Your task to perform on an android device: toggle javascript in the chrome app Image 0: 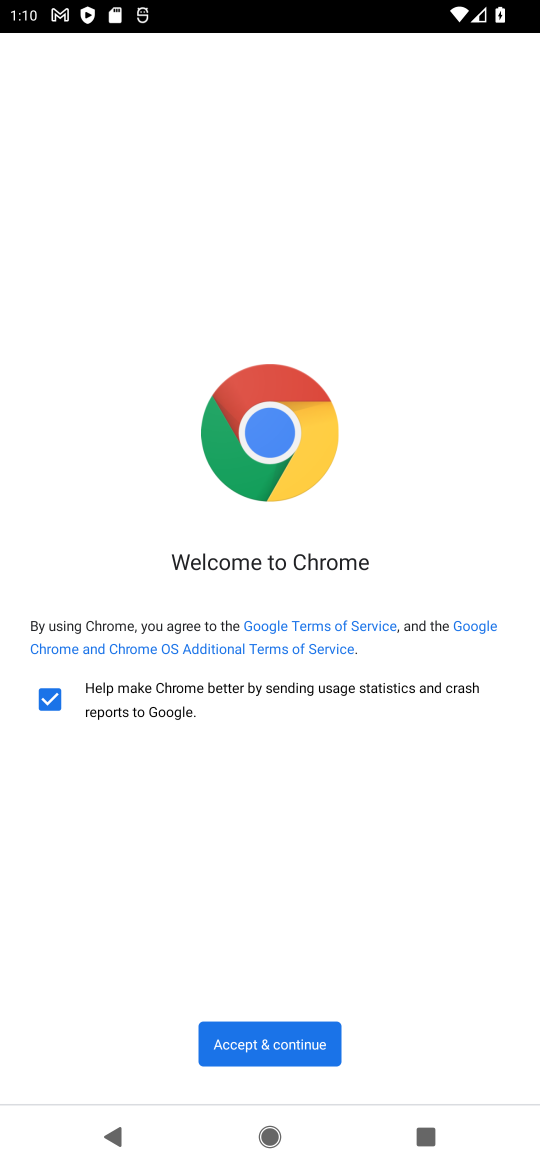
Step 0: press home button
Your task to perform on an android device: toggle javascript in the chrome app Image 1: 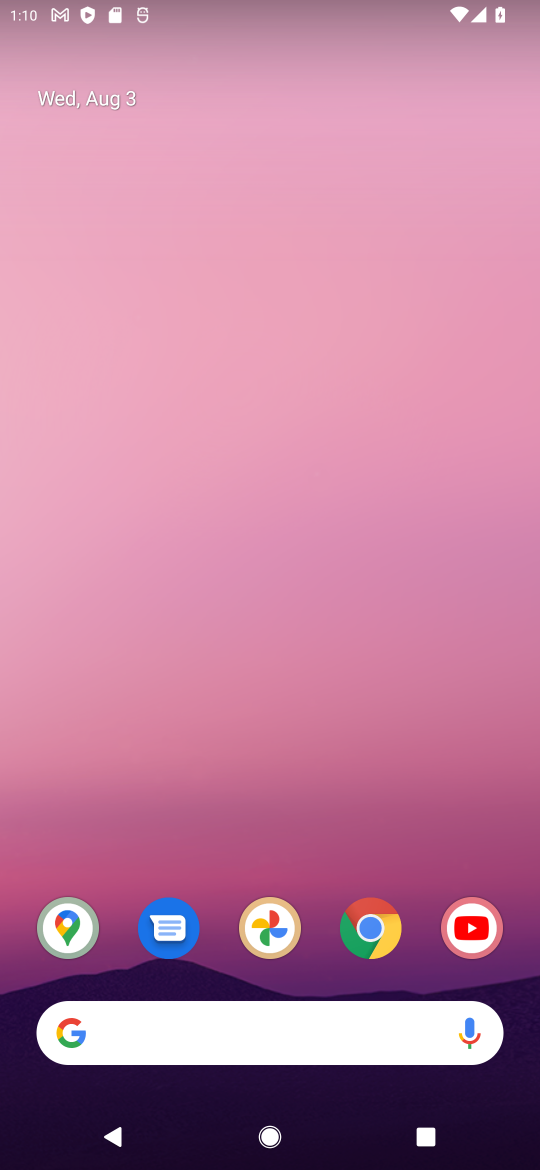
Step 1: click (379, 925)
Your task to perform on an android device: toggle javascript in the chrome app Image 2: 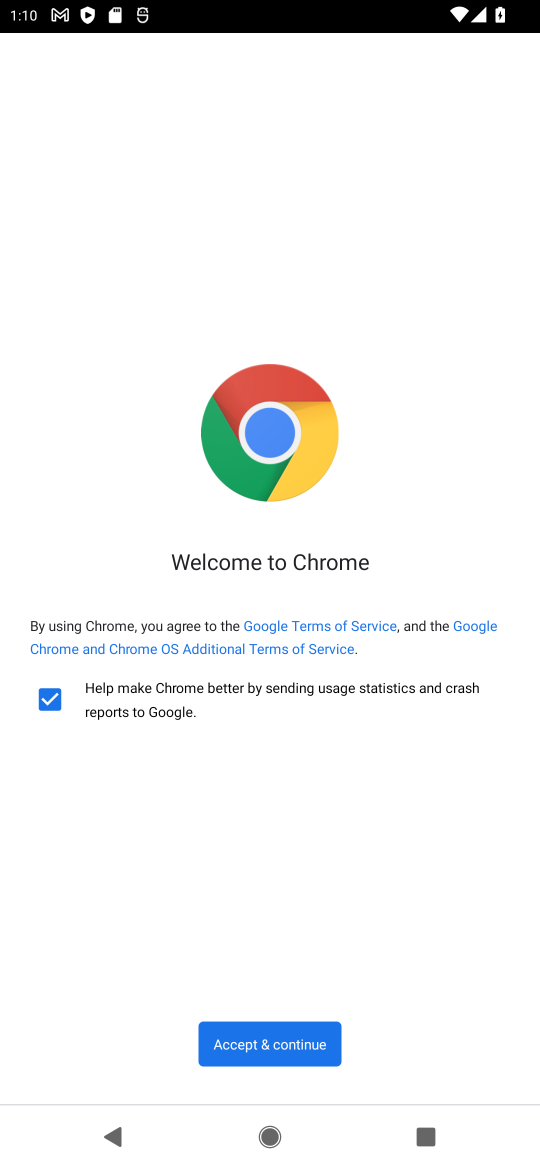
Step 2: click (303, 1040)
Your task to perform on an android device: toggle javascript in the chrome app Image 3: 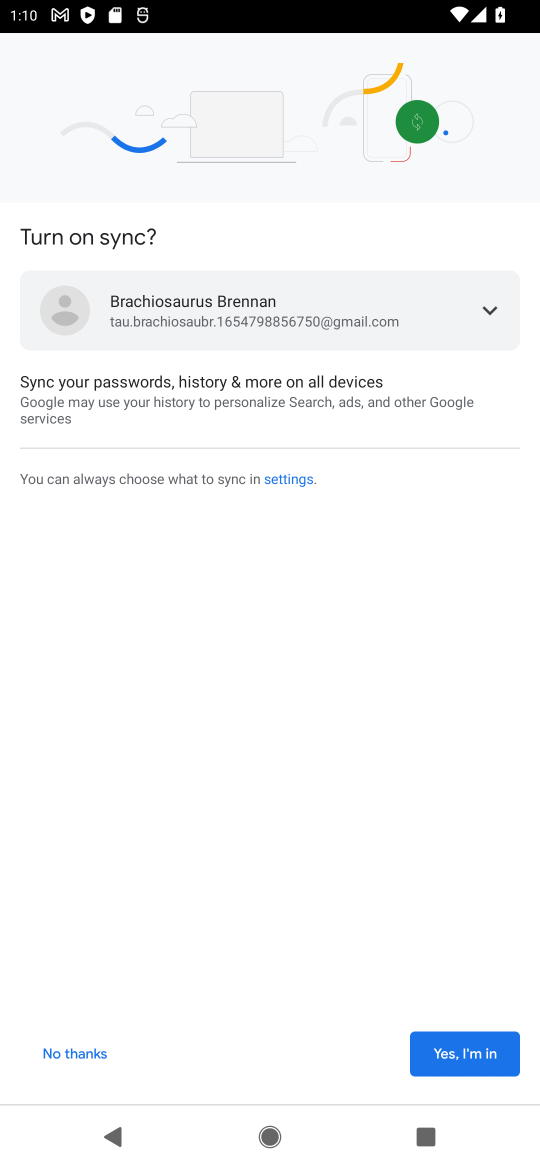
Step 3: click (460, 1046)
Your task to perform on an android device: toggle javascript in the chrome app Image 4: 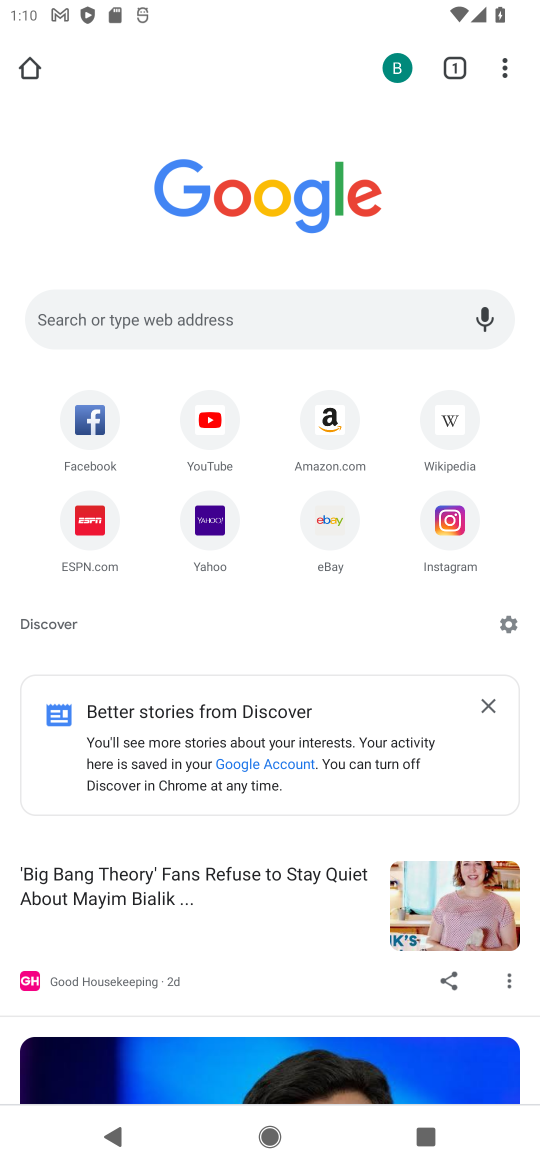
Step 4: click (508, 69)
Your task to perform on an android device: toggle javascript in the chrome app Image 5: 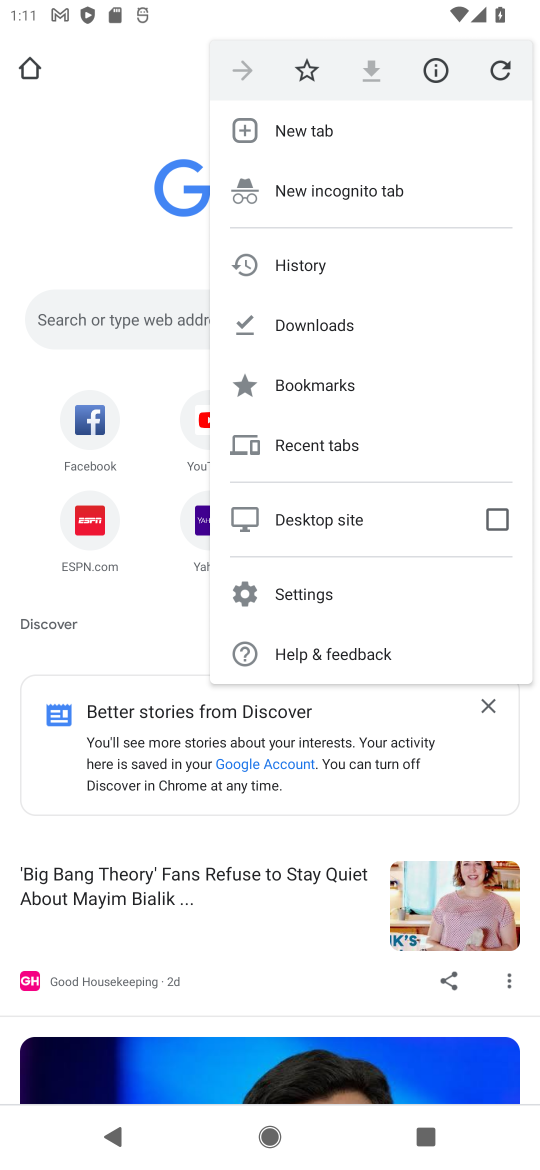
Step 5: click (297, 595)
Your task to perform on an android device: toggle javascript in the chrome app Image 6: 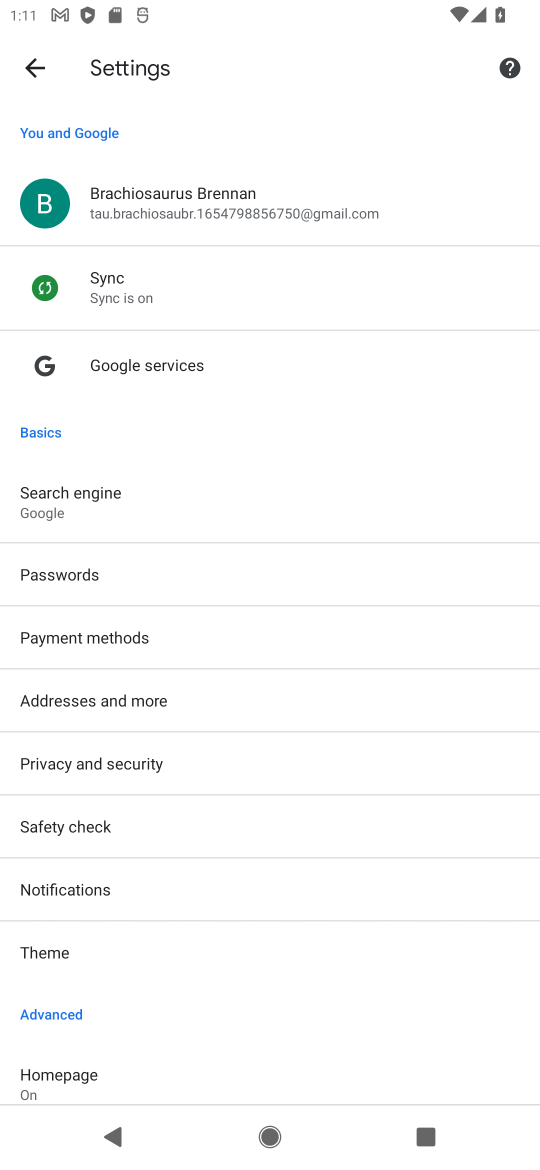
Step 6: drag from (185, 1027) to (161, 385)
Your task to perform on an android device: toggle javascript in the chrome app Image 7: 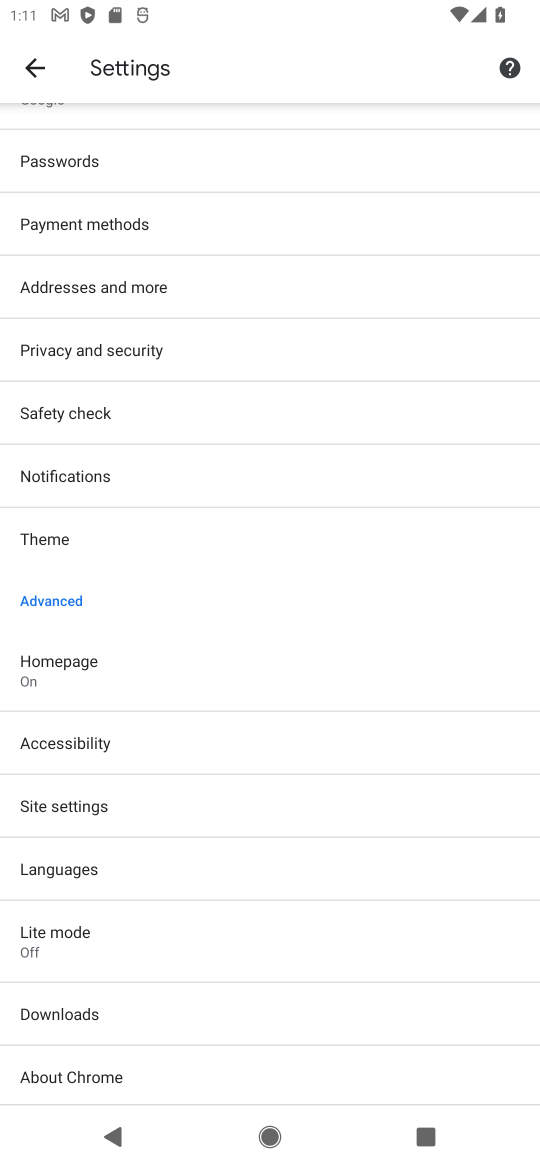
Step 7: click (51, 812)
Your task to perform on an android device: toggle javascript in the chrome app Image 8: 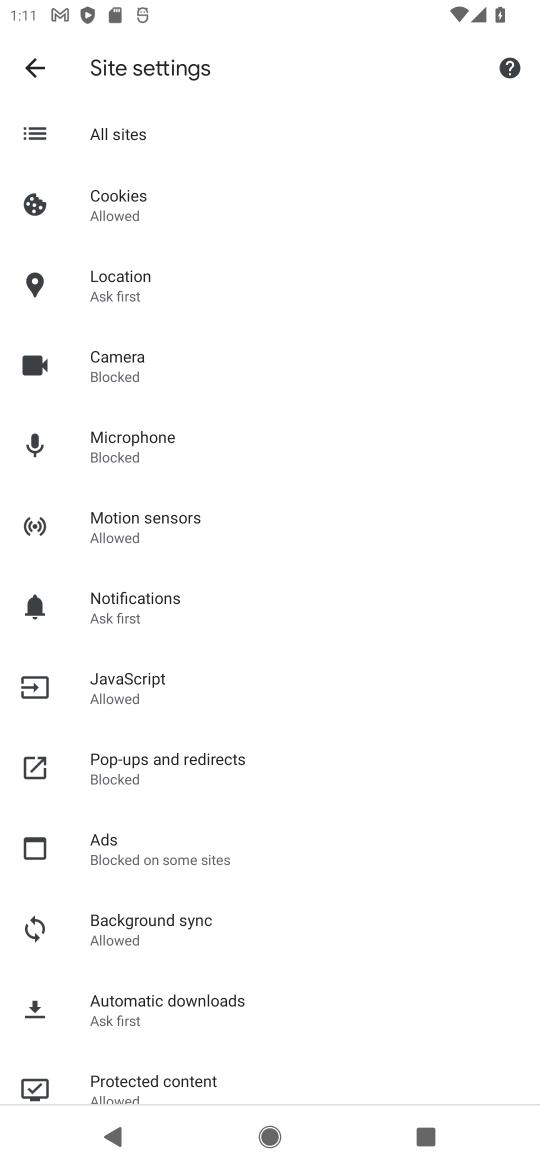
Step 8: click (135, 679)
Your task to perform on an android device: toggle javascript in the chrome app Image 9: 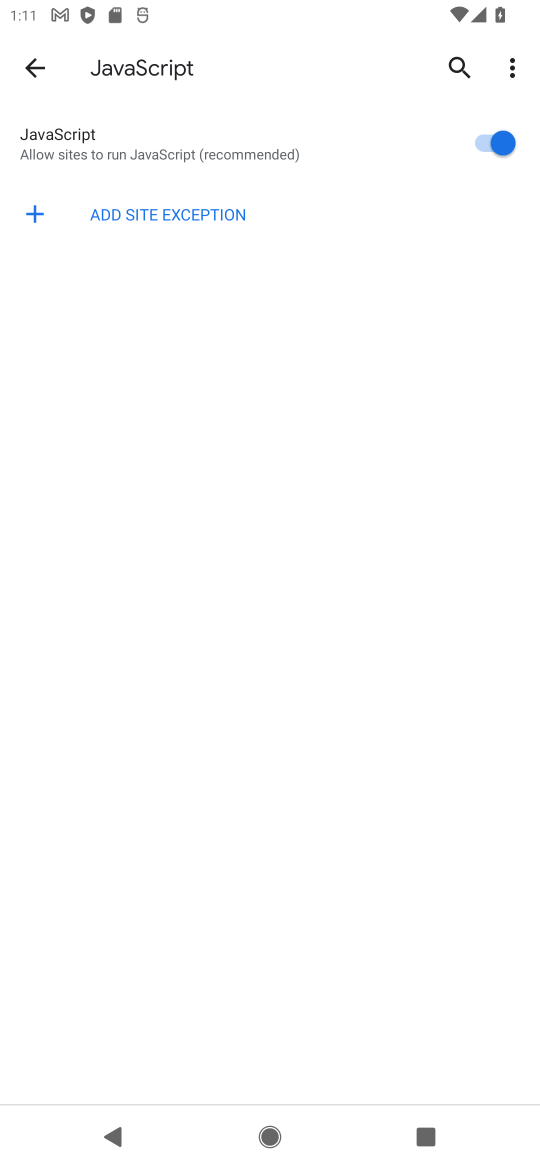
Step 9: click (494, 165)
Your task to perform on an android device: toggle javascript in the chrome app Image 10: 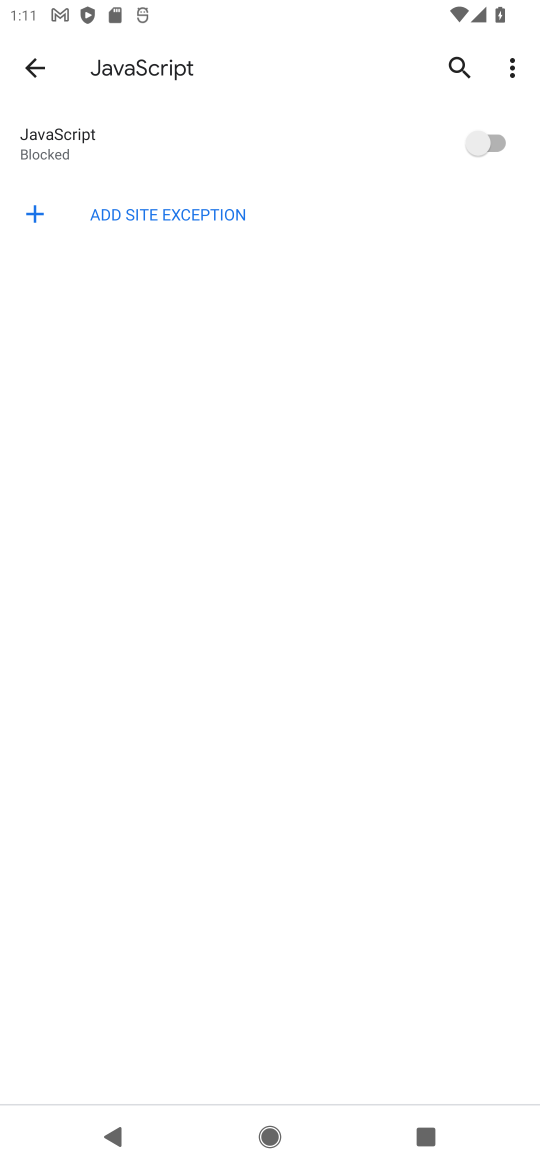
Step 10: task complete